Your task to perform on an android device: set an alarm Image 0: 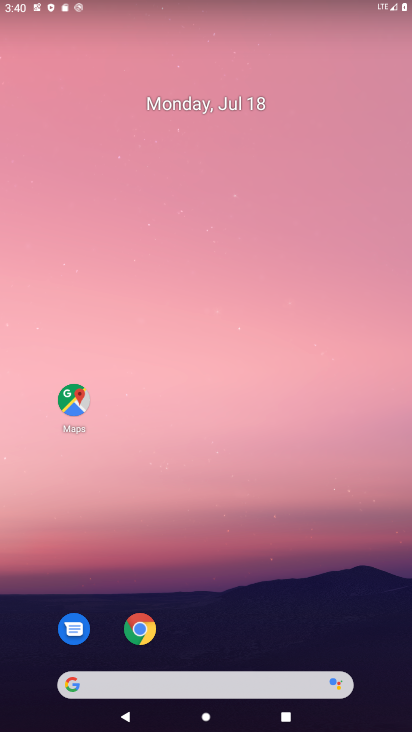
Step 0: drag from (245, 661) to (302, 24)
Your task to perform on an android device: set an alarm Image 1: 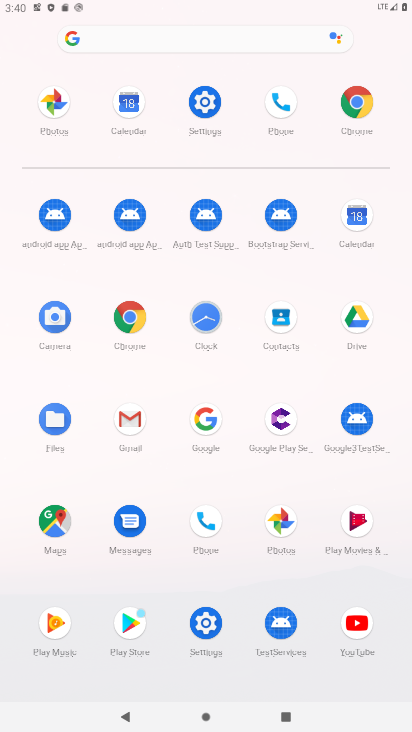
Step 1: click (212, 311)
Your task to perform on an android device: set an alarm Image 2: 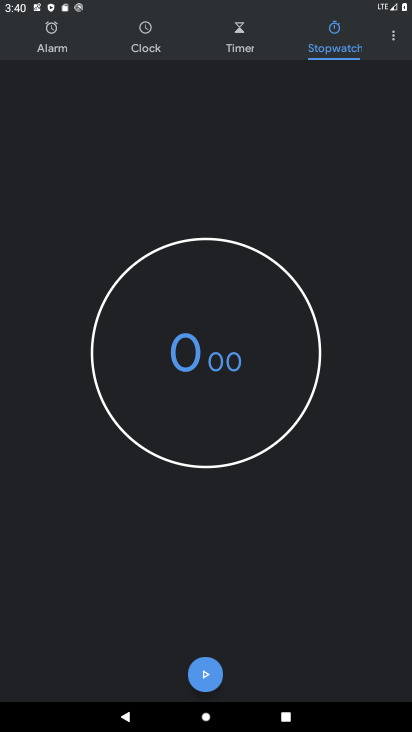
Step 2: click (56, 40)
Your task to perform on an android device: set an alarm Image 3: 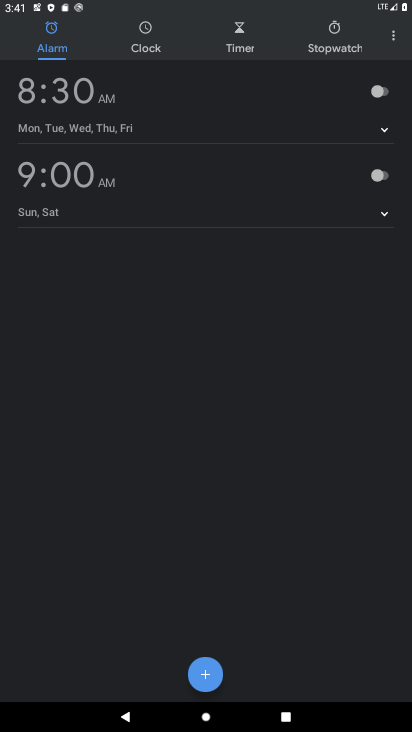
Step 3: click (379, 87)
Your task to perform on an android device: set an alarm Image 4: 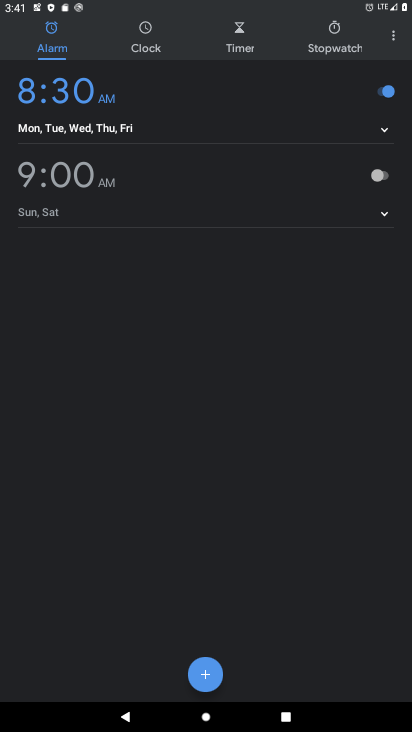
Step 4: task complete